Your task to perform on an android device: empty trash in the gmail app Image 0: 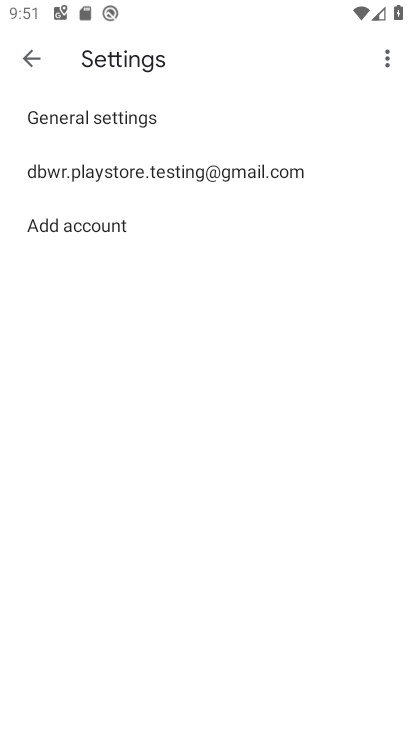
Step 0: press home button
Your task to perform on an android device: empty trash in the gmail app Image 1: 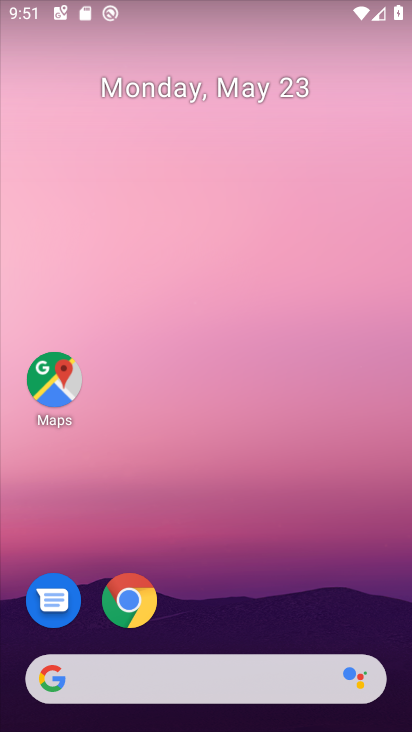
Step 1: drag from (209, 730) to (212, 123)
Your task to perform on an android device: empty trash in the gmail app Image 2: 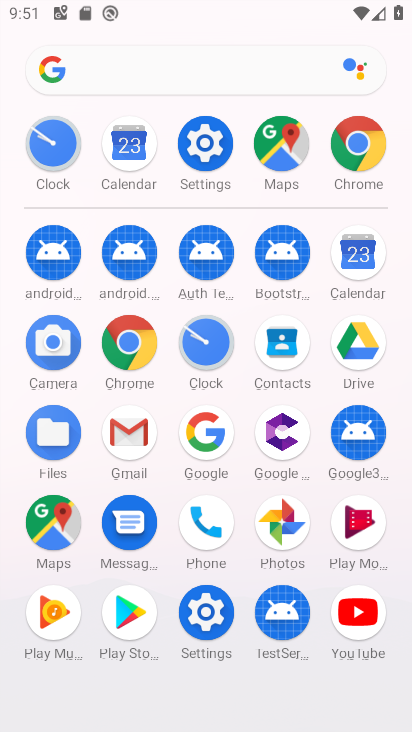
Step 2: click (120, 430)
Your task to perform on an android device: empty trash in the gmail app Image 3: 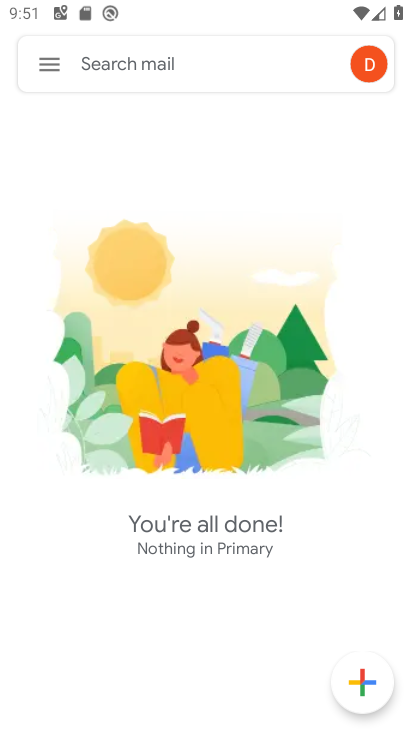
Step 3: click (46, 64)
Your task to perform on an android device: empty trash in the gmail app Image 4: 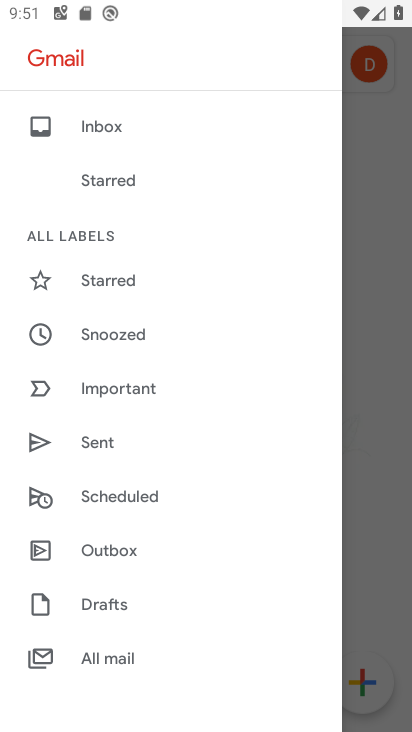
Step 4: drag from (133, 639) to (164, 218)
Your task to perform on an android device: empty trash in the gmail app Image 5: 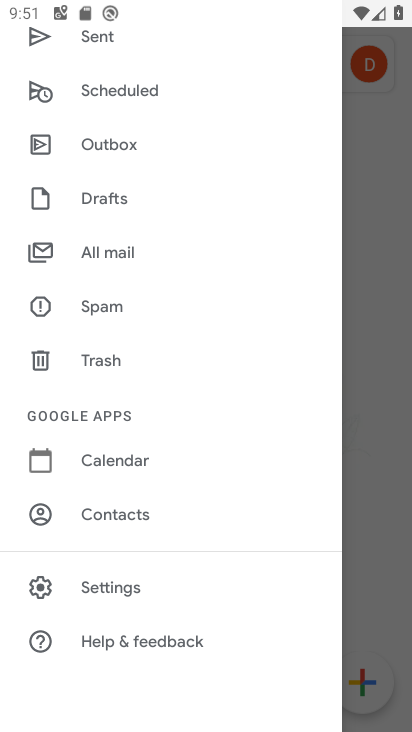
Step 5: click (115, 352)
Your task to perform on an android device: empty trash in the gmail app Image 6: 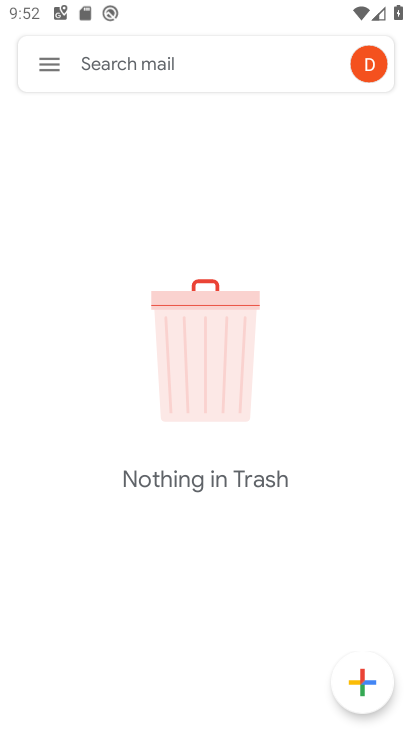
Step 6: task complete